Your task to perform on an android device: When is my next meeting? Image 0: 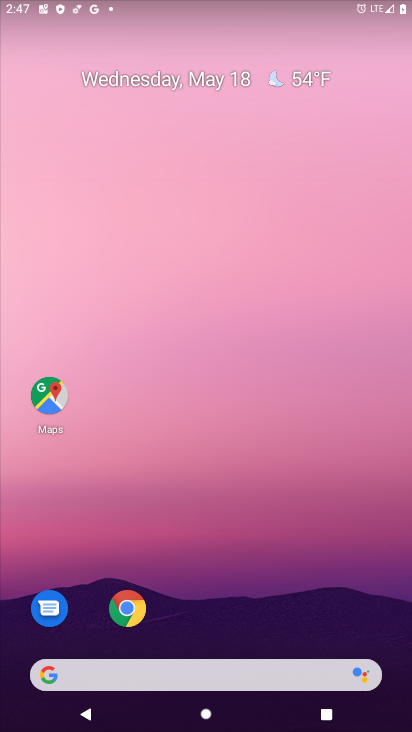
Step 0: drag from (292, 634) to (165, 34)
Your task to perform on an android device: When is my next meeting? Image 1: 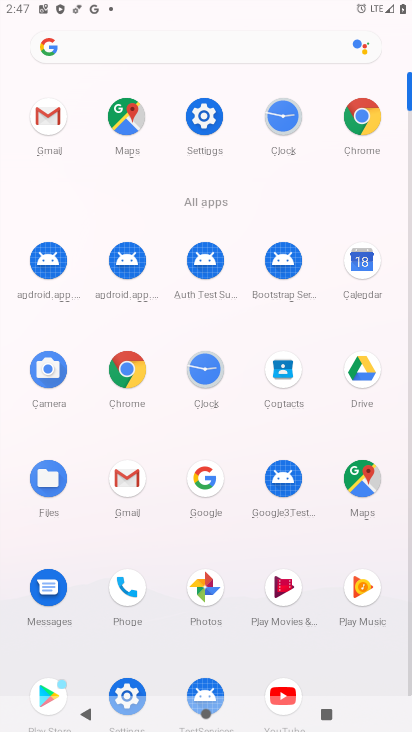
Step 1: click (353, 276)
Your task to perform on an android device: When is my next meeting? Image 2: 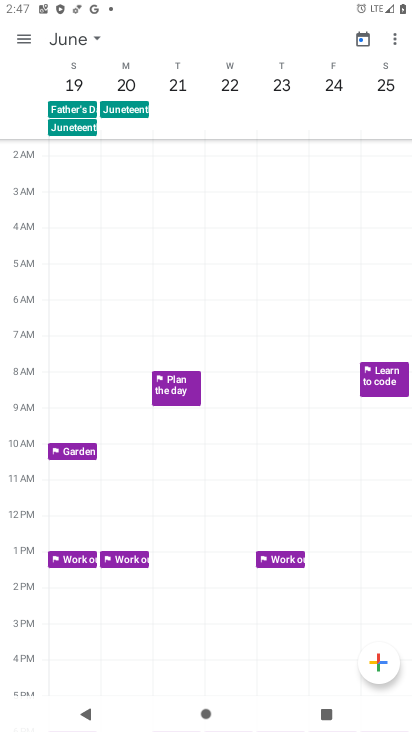
Step 2: click (21, 40)
Your task to perform on an android device: When is my next meeting? Image 3: 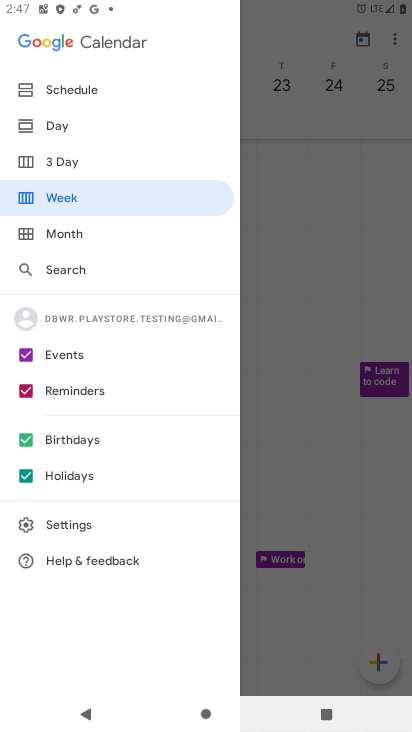
Step 3: click (61, 93)
Your task to perform on an android device: When is my next meeting? Image 4: 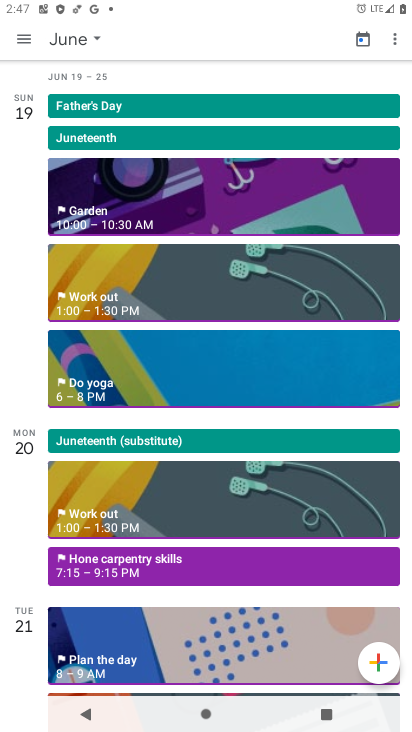
Step 4: click (100, 564)
Your task to perform on an android device: When is my next meeting? Image 5: 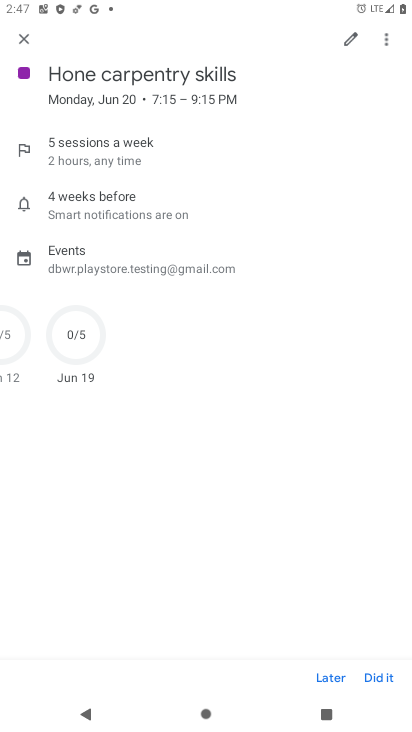
Step 5: task complete